Your task to perform on an android device: Open privacy settings Image 0: 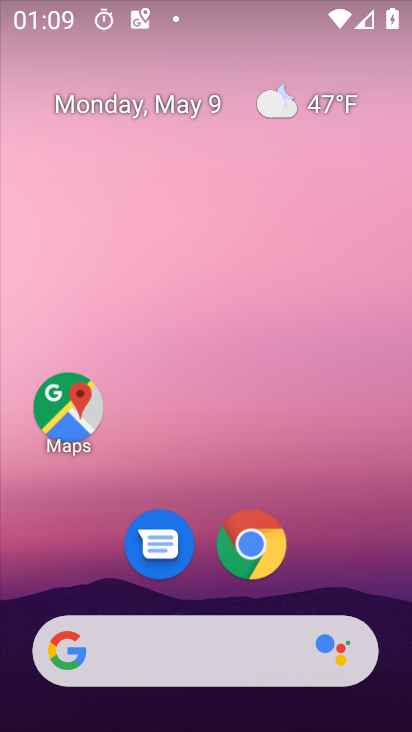
Step 0: drag from (313, 558) to (407, 236)
Your task to perform on an android device: Open privacy settings Image 1: 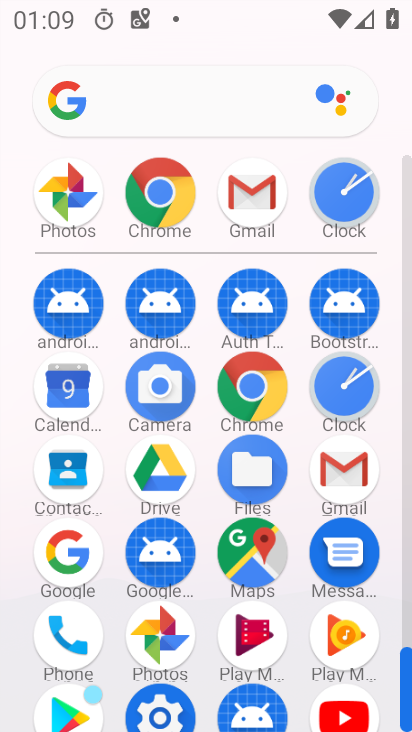
Step 1: click (165, 715)
Your task to perform on an android device: Open privacy settings Image 2: 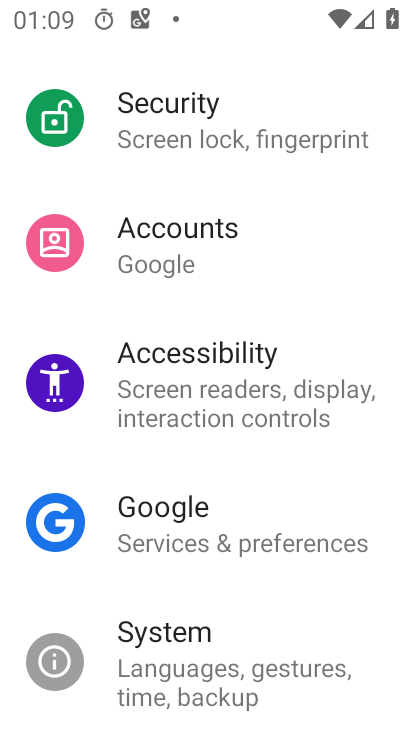
Step 2: drag from (176, 237) to (259, 655)
Your task to perform on an android device: Open privacy settings Image 3: 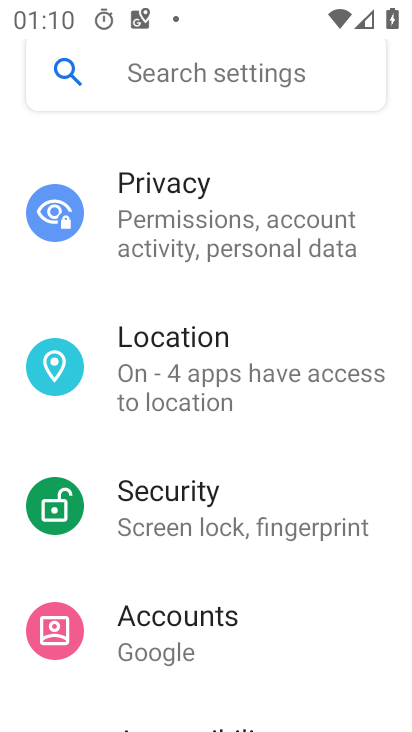
Step 3: click (194, 277)
Your task to perform on an android device: Open privacy settings Image 4: 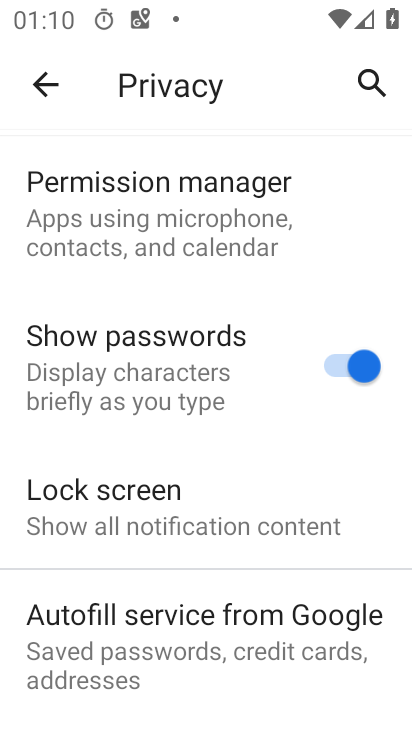
Step 4: task complete